Your task to perform on an android device: open wifi settings Image 0: 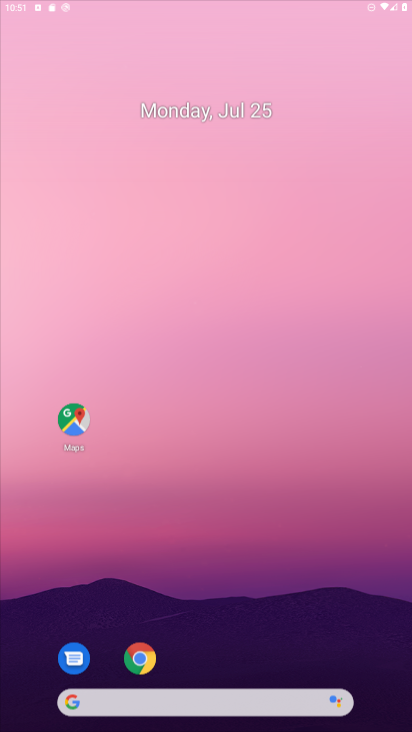
Step 0: click (259, 240)
Your task to perform on an android device: open wifi settings Image 1: 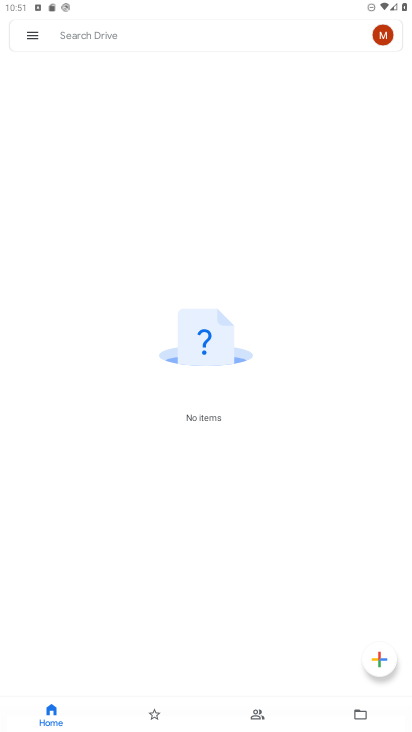
Step 1: press home button
Your task to perform on an android device: open wifi settings Image 2: 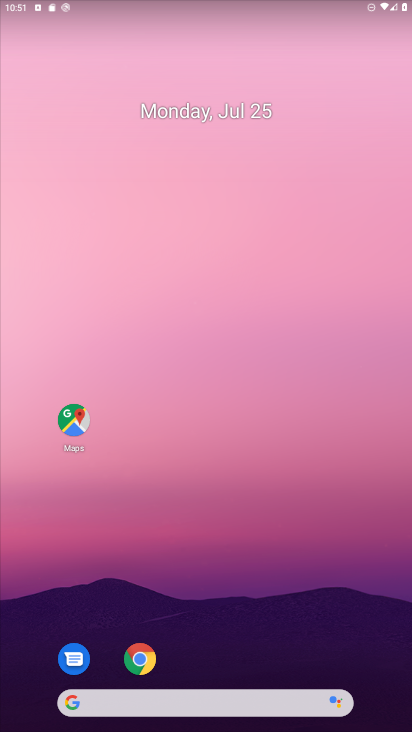
Step 2: drag from (209, 655) to (241, 323)
Your task to perform on an android device: open wifi settings Image 3: 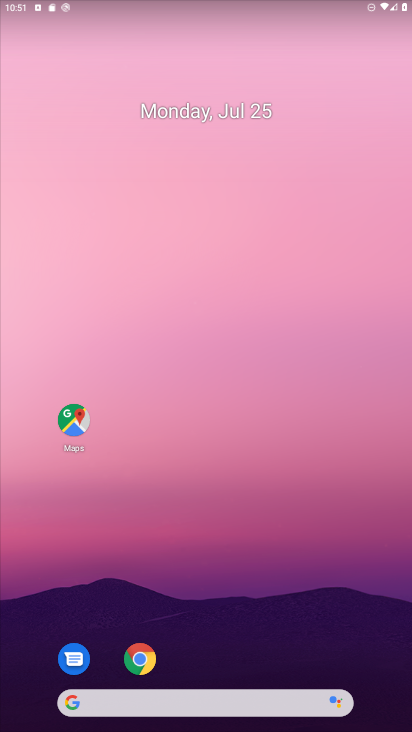
Step 3: drag from (222, 643) to (256, 137)
Your task to perform on an android device: open wifi settings Image 4: 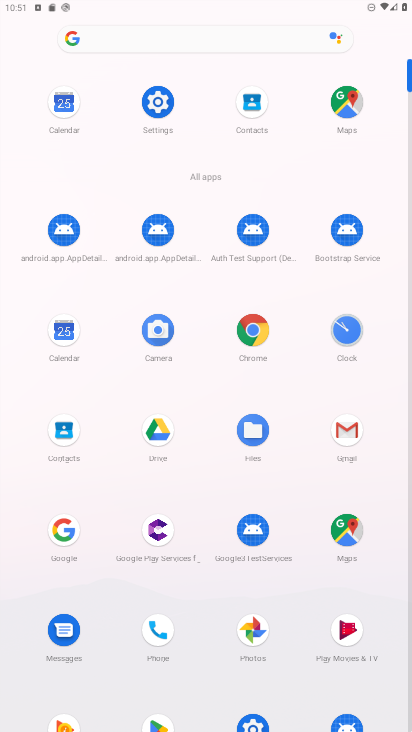
Step 4: click (175, 108)
Your task to perform on an android device: open wifi settings Image 5: 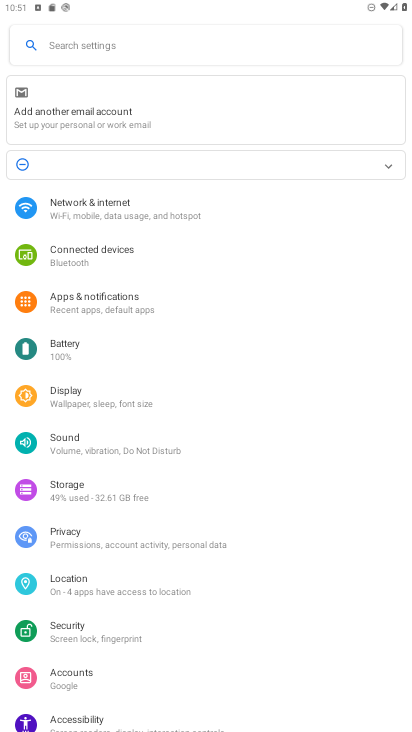
Step 5: click (95, 213)
Your task to perform on an android device: open wifi settings Image 6: 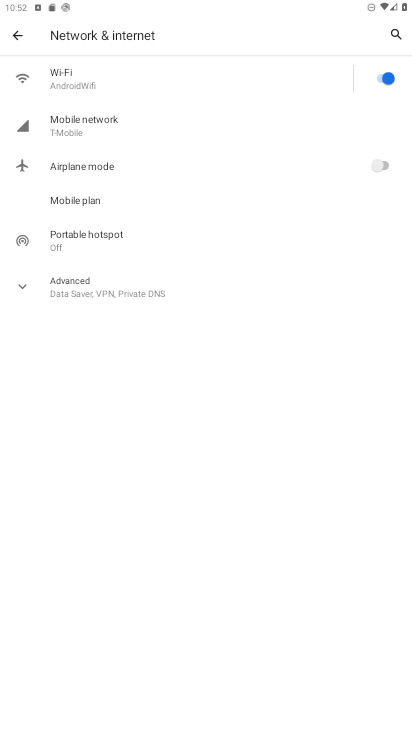
Step 6: click (194, 78)
Your task to perform on an android device: open wifi settings Image 7: 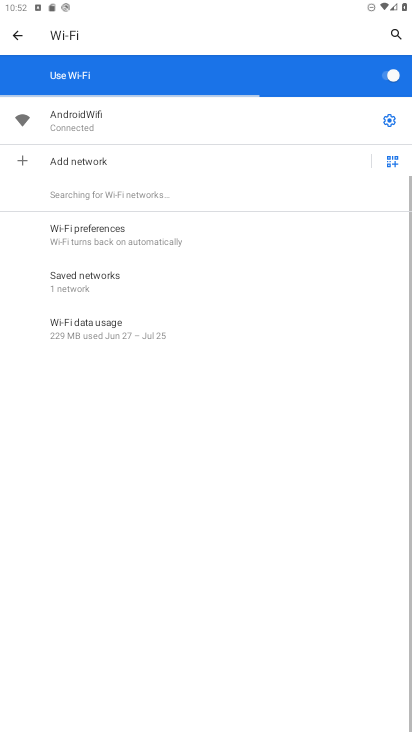
Step 7: task complete